Your task to perform on an android device: find snoozed emails in the gmail app Image 0: 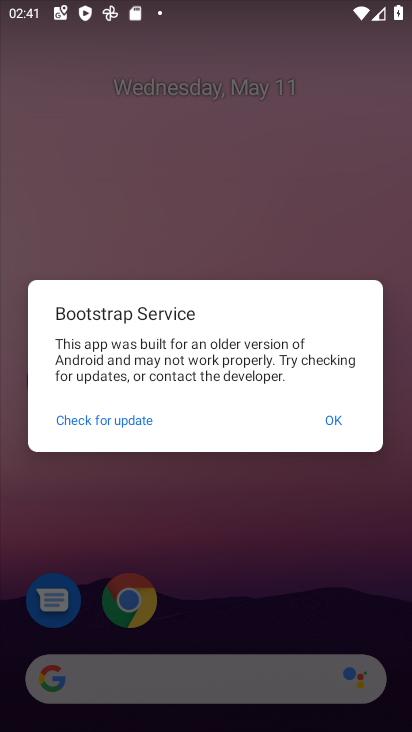
Step 0: click (324, 544)
Your task to perform on an android device: find snoozed emails in the gmail app Image 1: 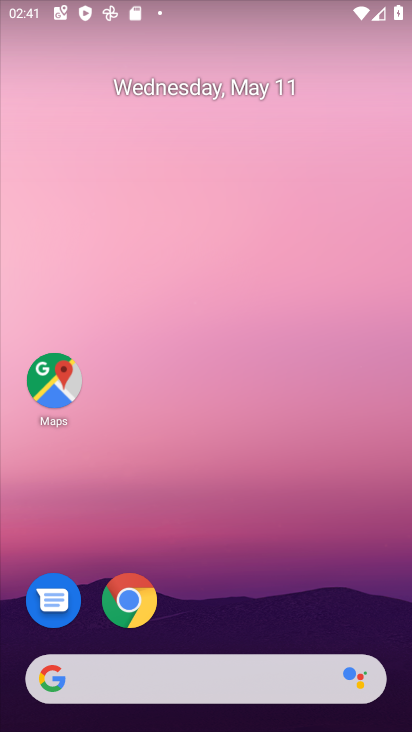
Step 1: press home button
Your task to perform on an android device: find snoozed emails in the gmail app Image 2: 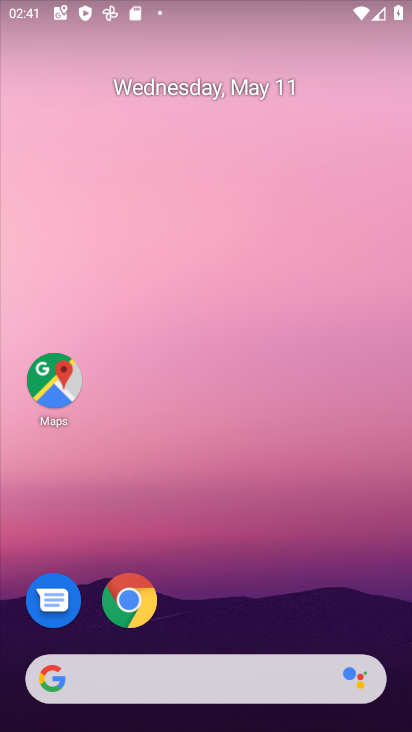
Step 2: drag from (114, 719) to (161, 221)
Your task to perform on an android device: find snoozed emails in the gmail app Image 3: 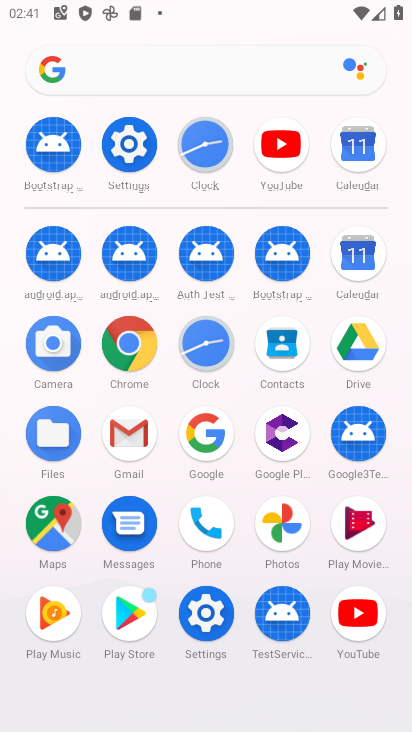
Step 3: click (144, 436)
Your task to perform on an android device: find snoozed emails in the gmail app Image 4: 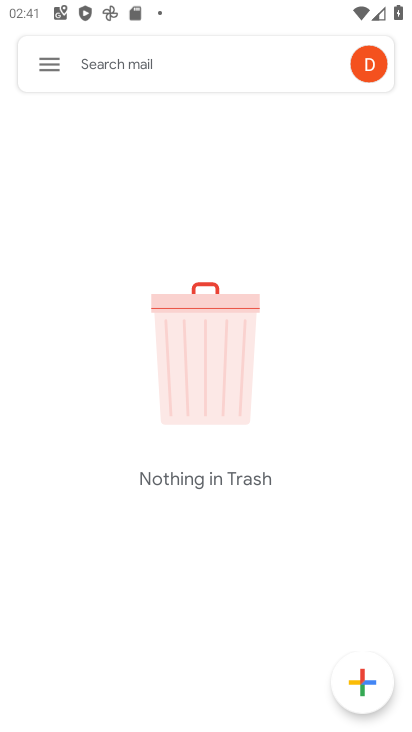
Step 4: click (42, 43)
Your task to perform on an android device: find snoozed emails in the gmail app Image 5: 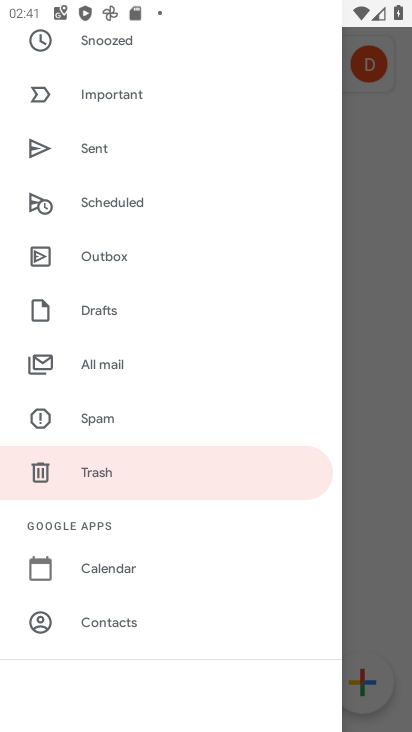
Step 5: drag from (225, 177) to (215, 671)
Your task to perform on an android device: find snoozed emails in the gmail app Image 6: 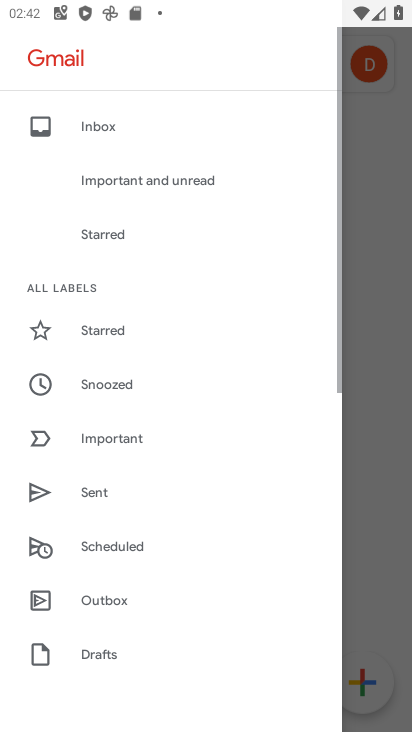
Step 6: click (85, 383)
Your task to perform on an android device: find snoozed emails in the gmail app Image 7: 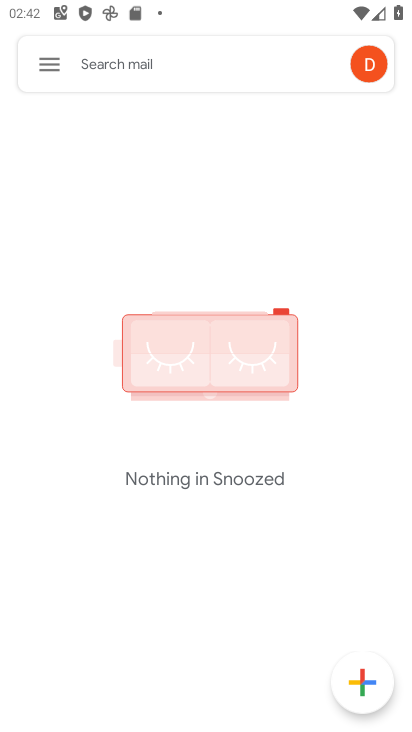
Step 7: task complete